Your task to perform on an android device: Search for a new bronzer Image 0: 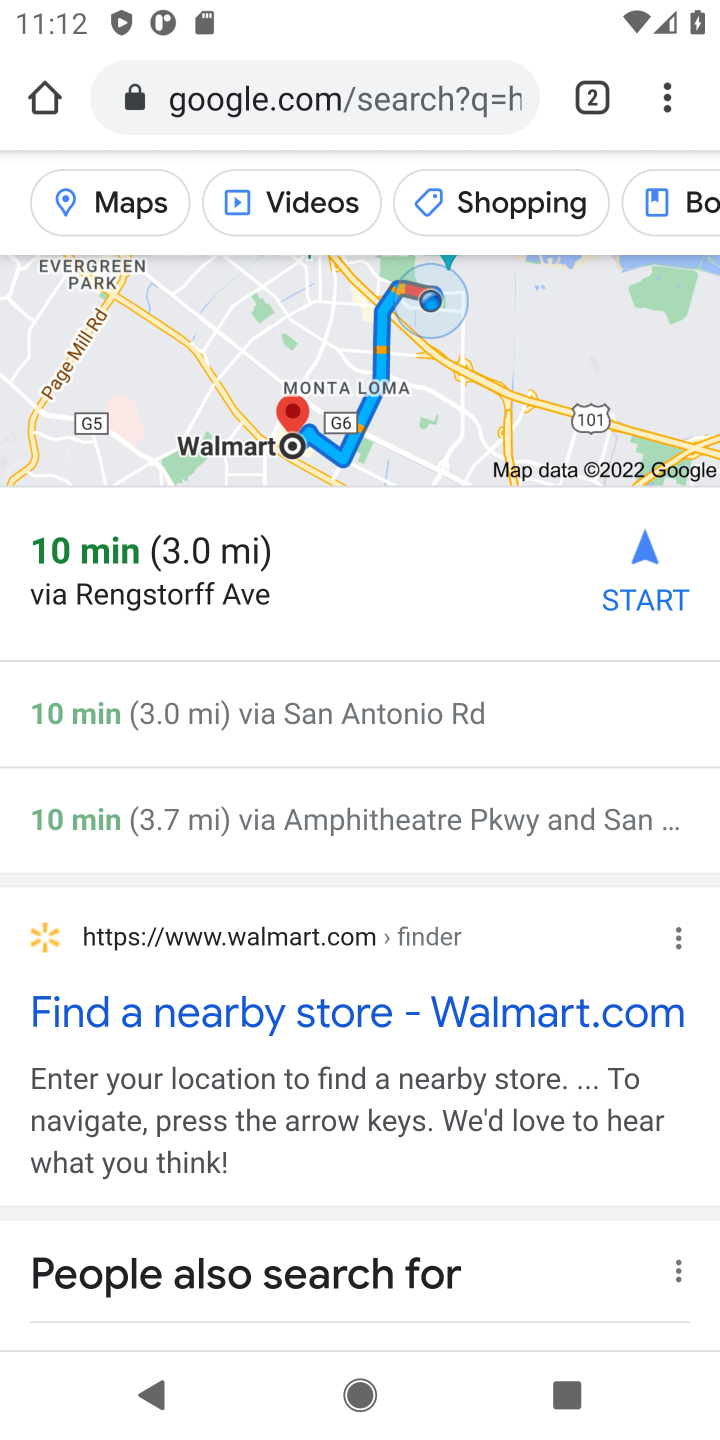
Step 0: drag from (206, 1124) to (191, 314)
Your task to perform on an android device: Search for a new bronzer Image 1: 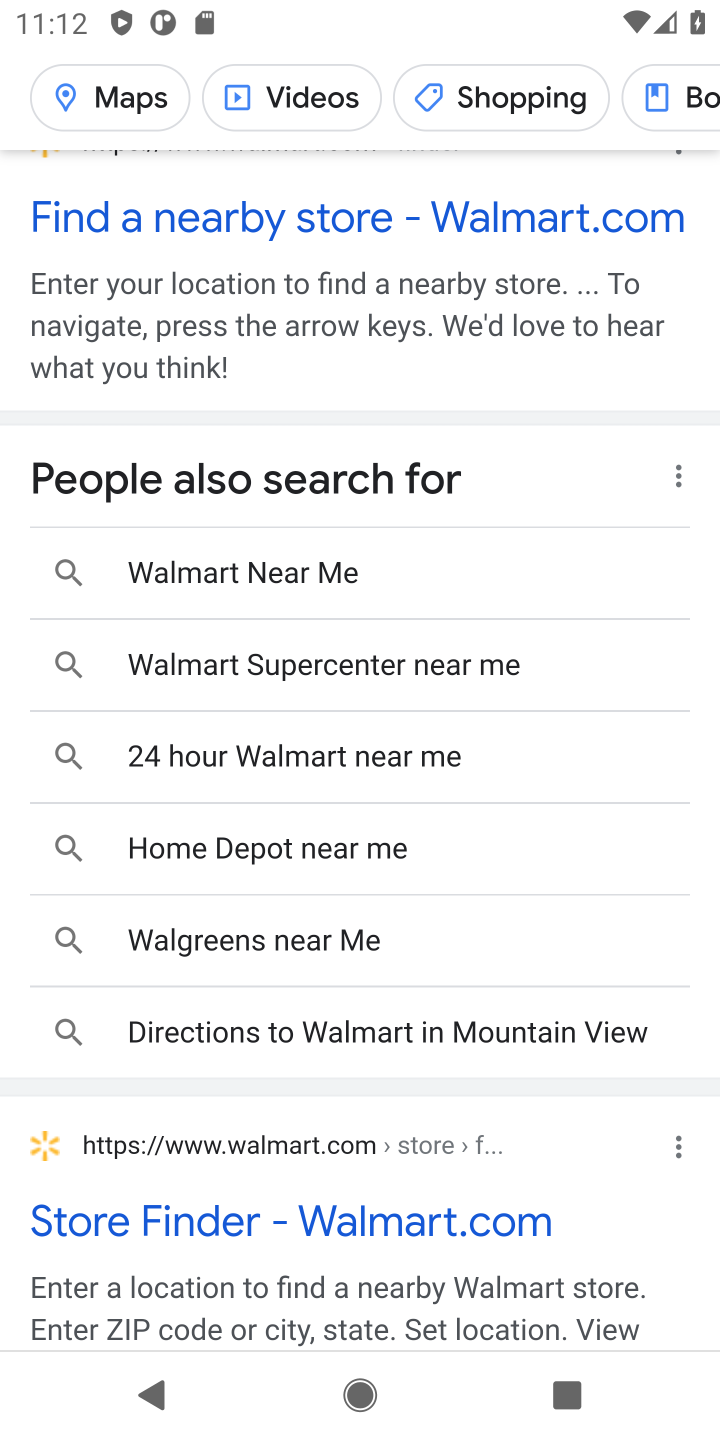
Step 1: drag from (290, 301) to (209, 1224)
Your task to perform on an android device: Search for a new bronzer Image 2: 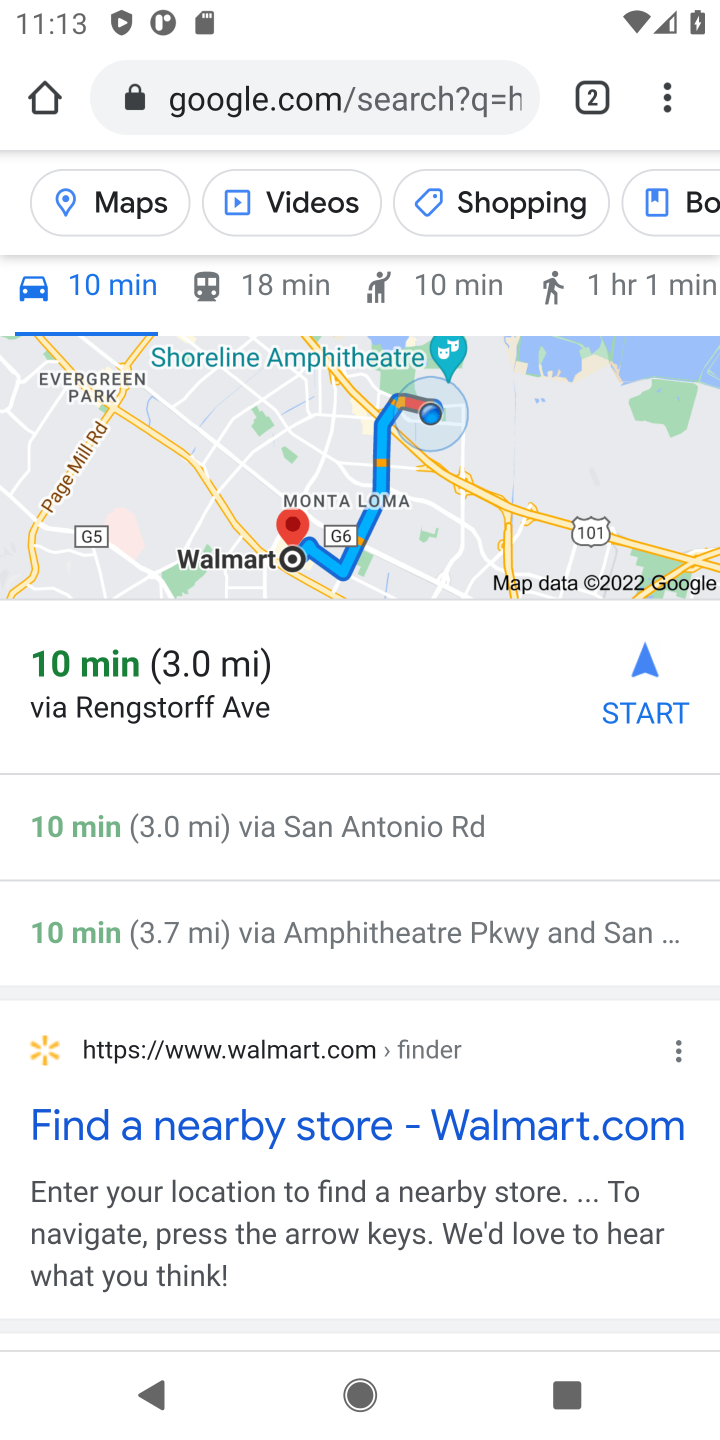
Step 2: click (240, 102)
Your task to perform on an android device: Search for a new bronzer Image 3: 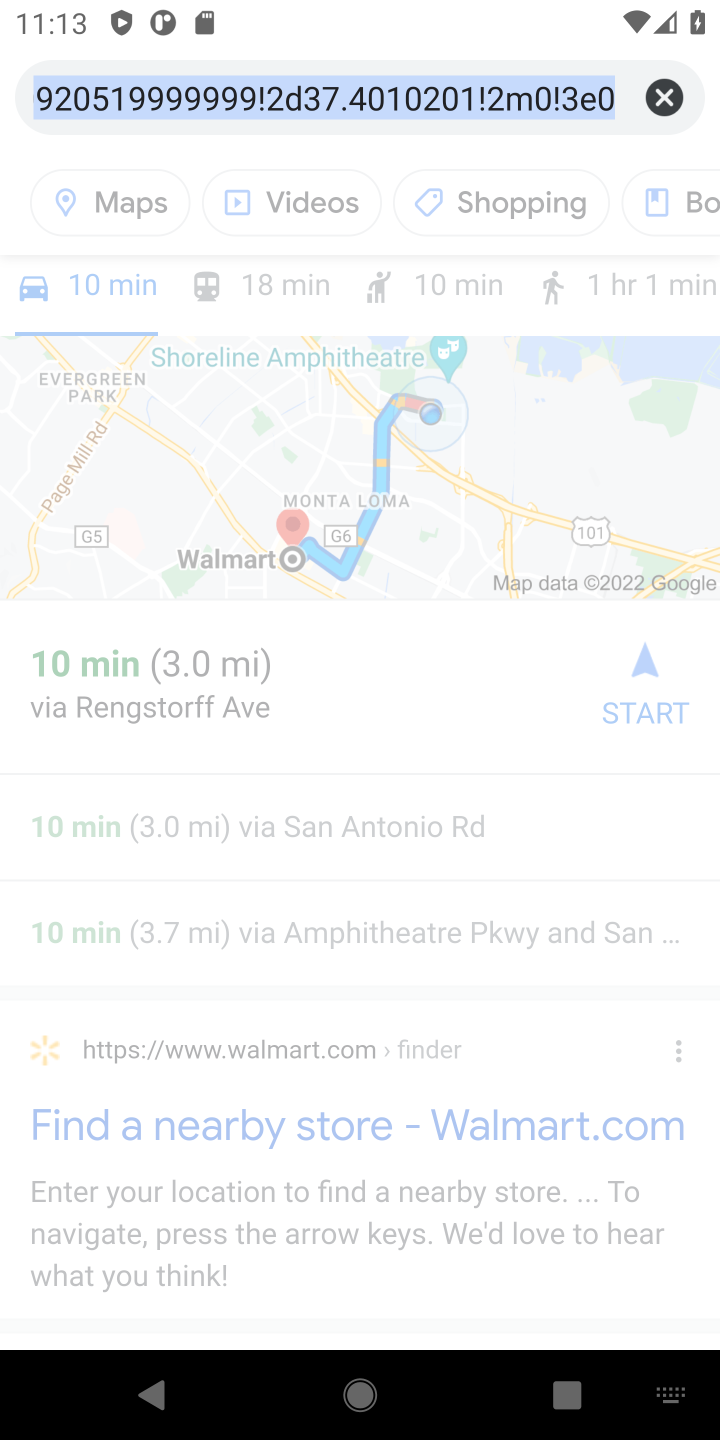
Step 3: click (653, 90)
Your task to perform on an android device: Search for a new bronzer Image 4: 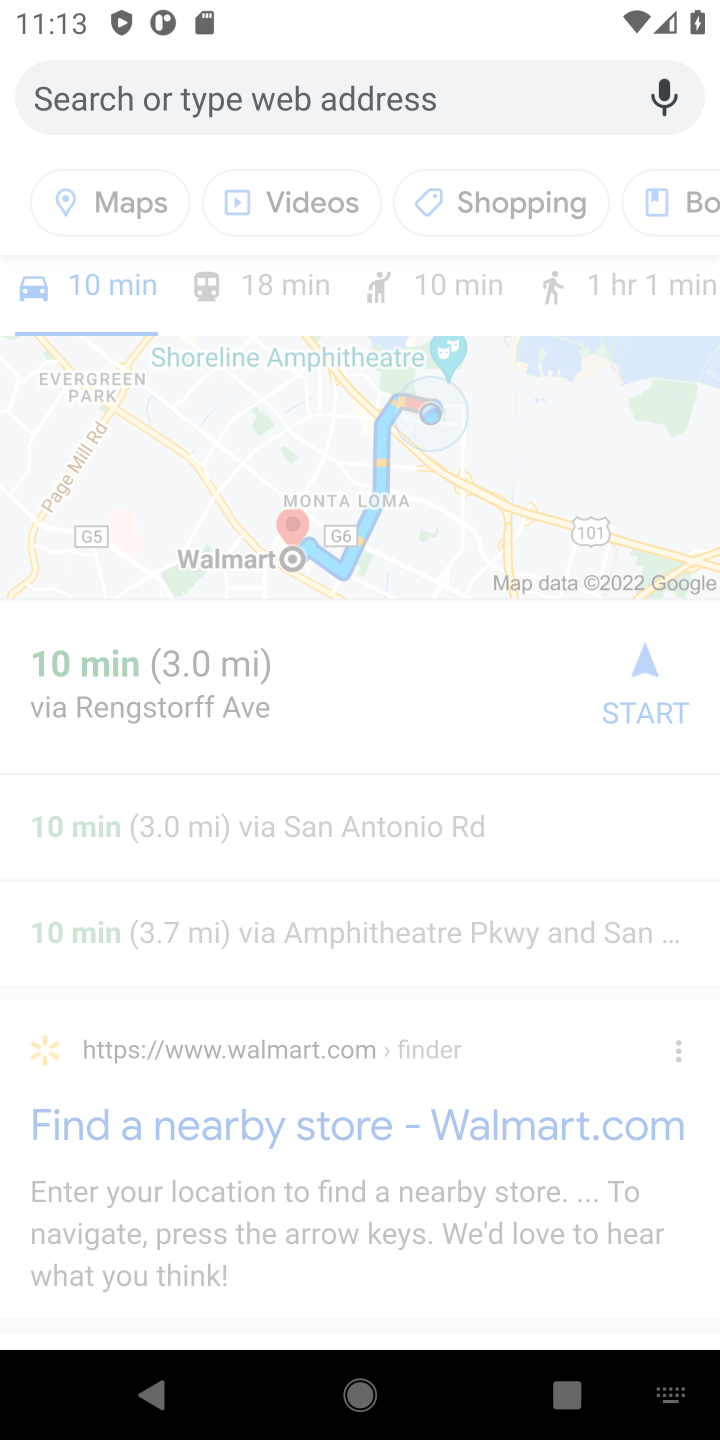
Step 4: type ""
Your task to perform on an android device: Search for a new bronzer Image 5: 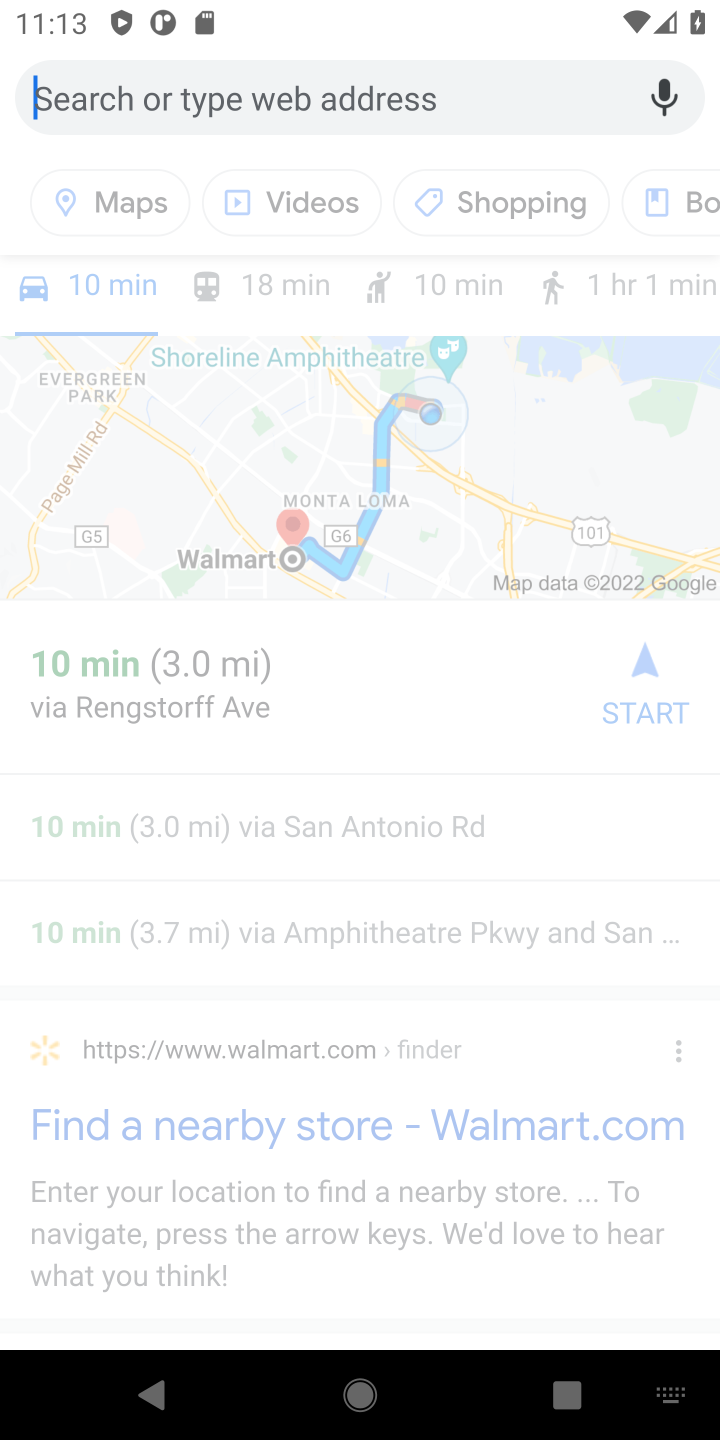
Step 5: type "Search for a new bronzer"
Your task to perform on an android device: Search for a new bronzer Image 6: 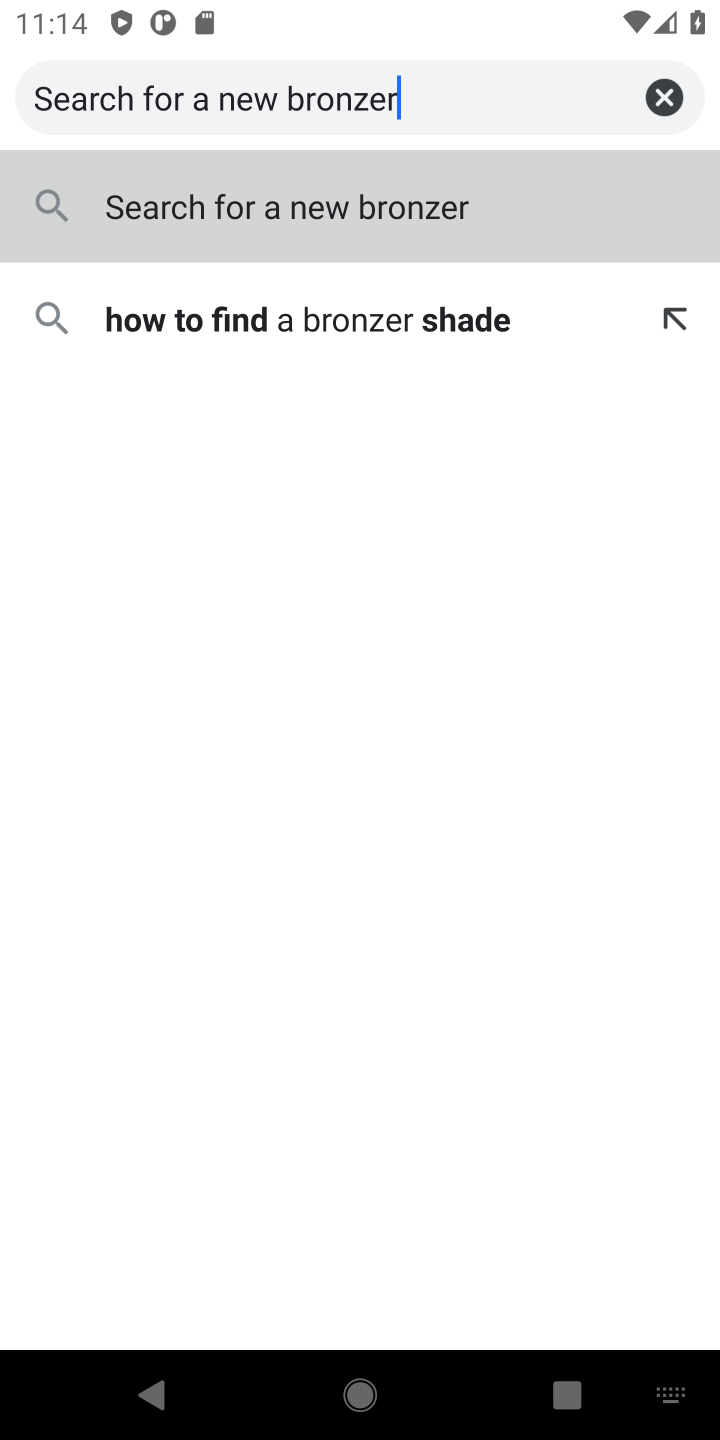
Step 6: click (318, 192)
Your task to perform on an android device: Search for a new bronzer Image 7: 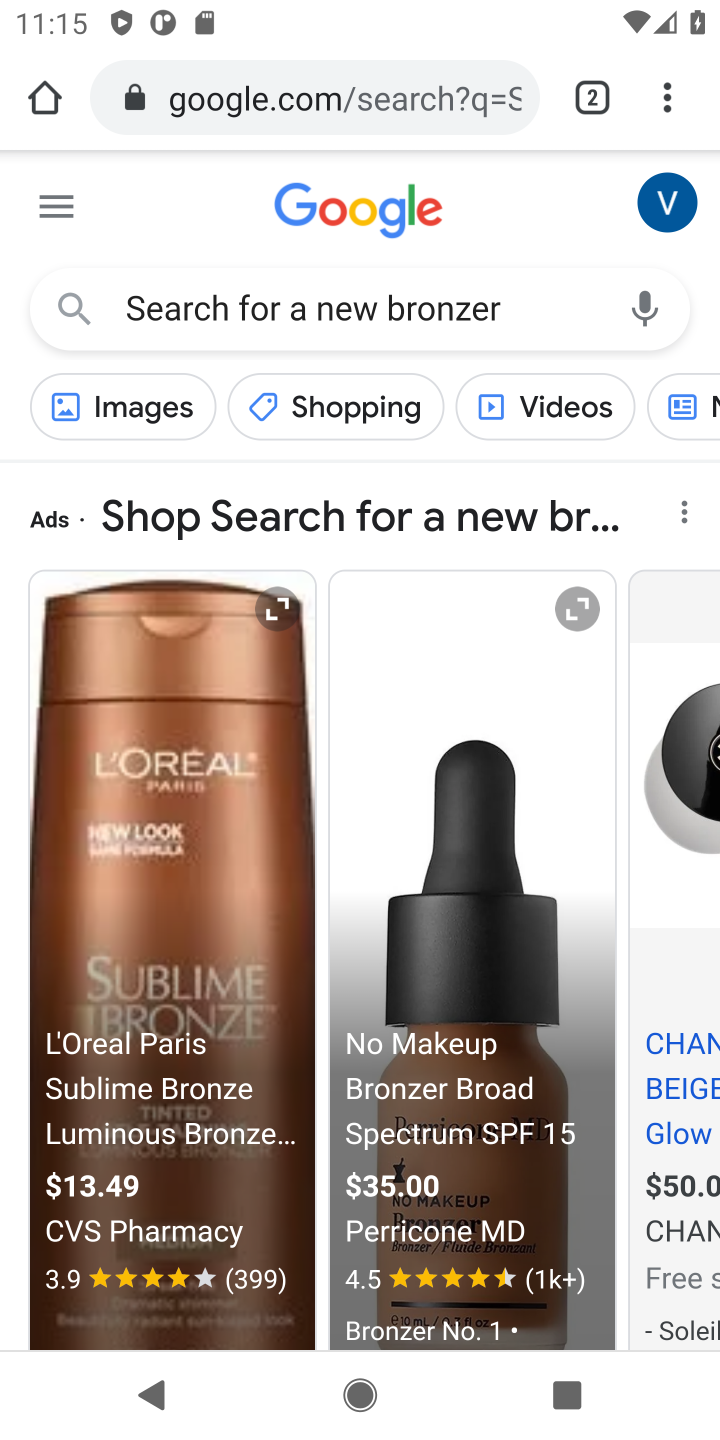
Step 7: task complete